Your task to perform on an android device: uninstall "Expedia: Hotels, Flights & Car" Image 0: 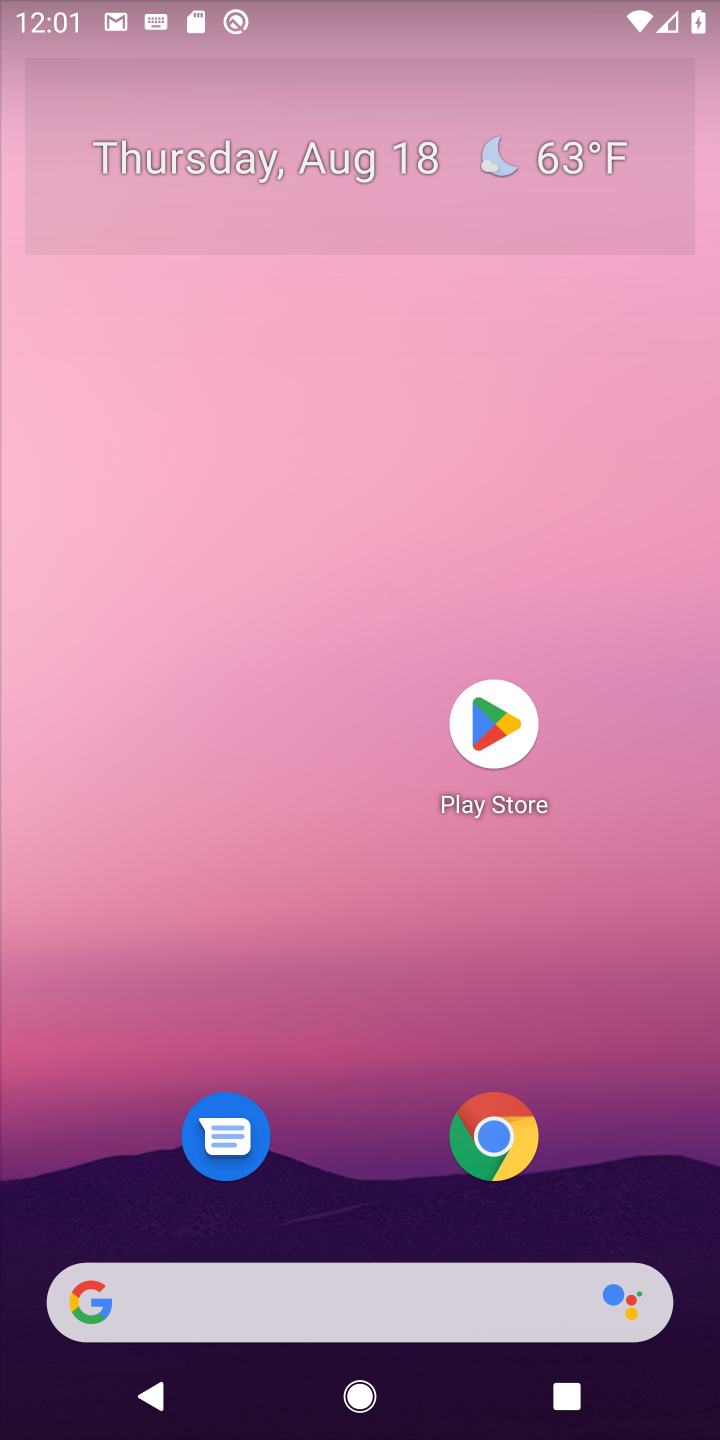
Step 0: press home button
Your task to perform on an android device: uninstall "Expedia: Hotels, Flights & Car" Image 1: 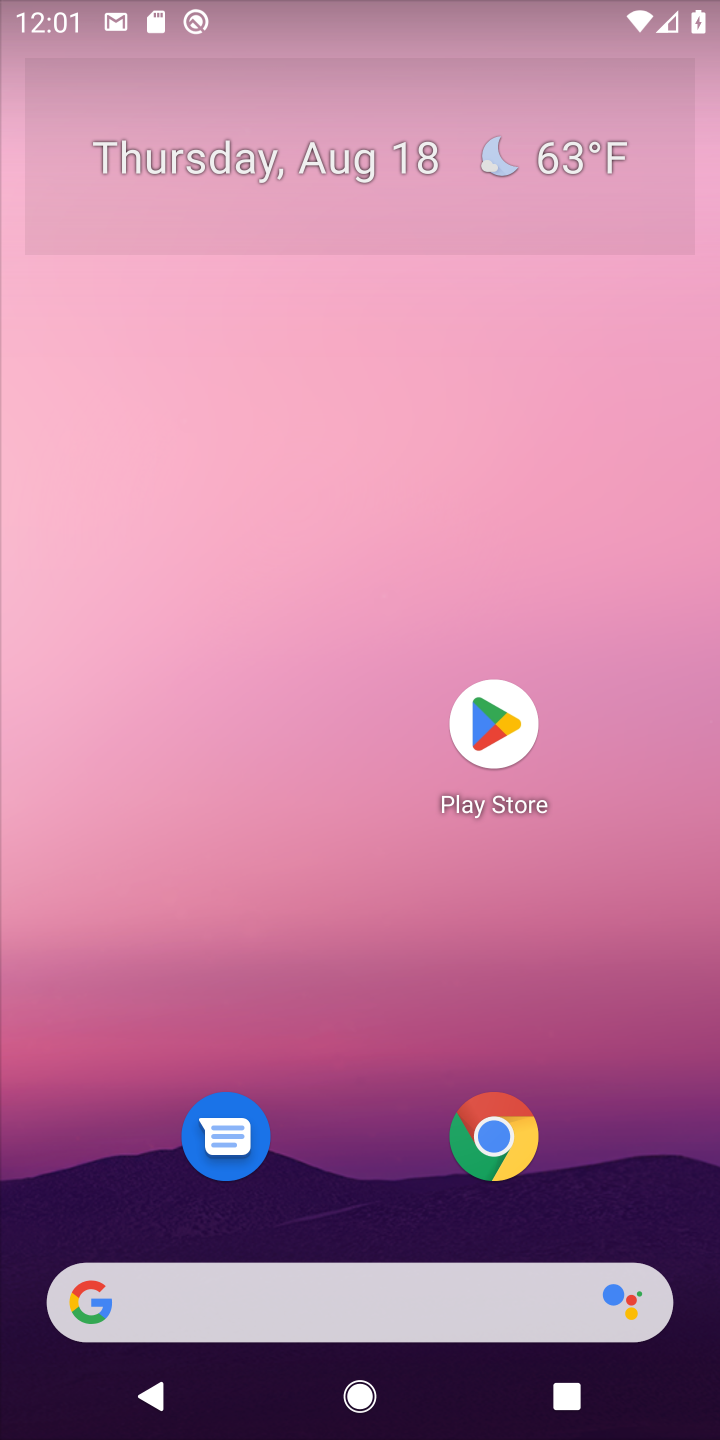
Step 1: click (502, 723)
Your task to perform on an android device: uninstall "Expedia: Hotels, Flights & Car" Image 2: 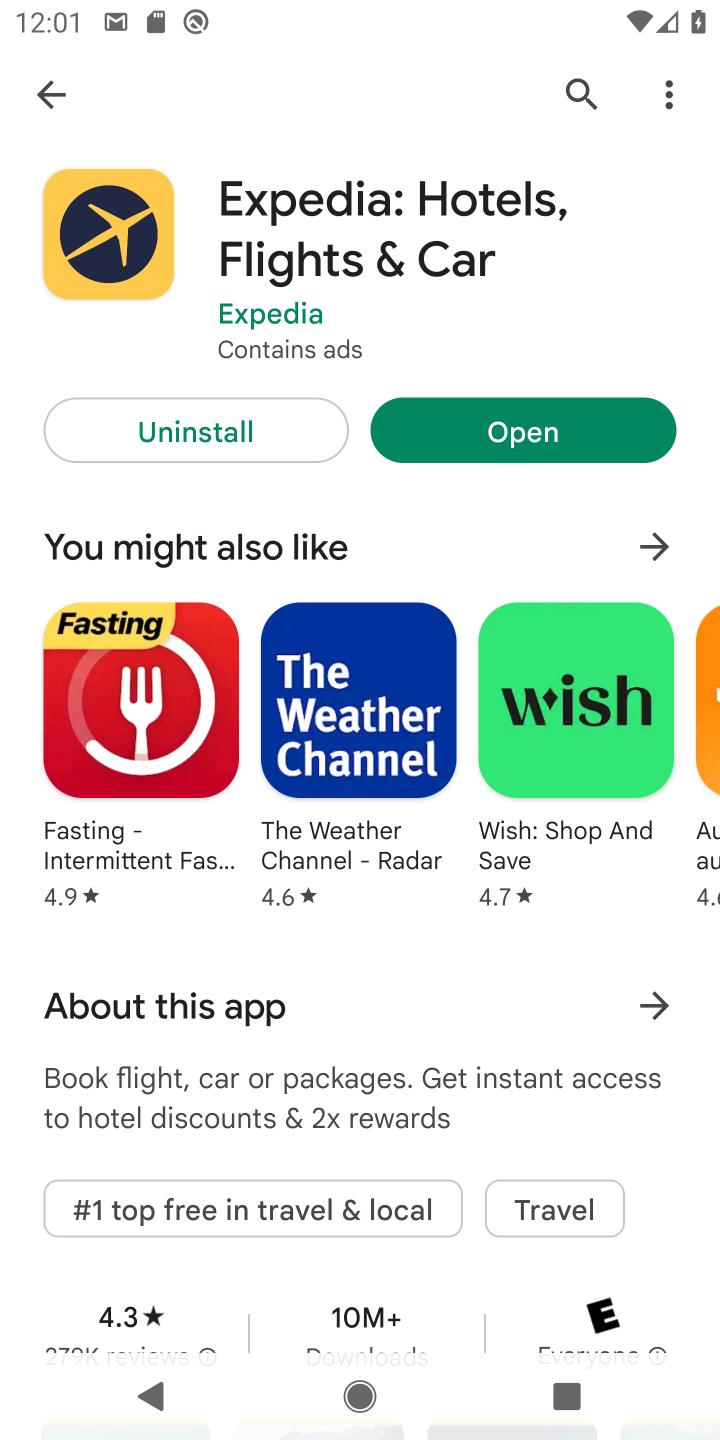
Step 2: click (220, 432)
Your task to perform on an android device: uninstall "Expedia: Hotels, Flights & Car" Image 3: 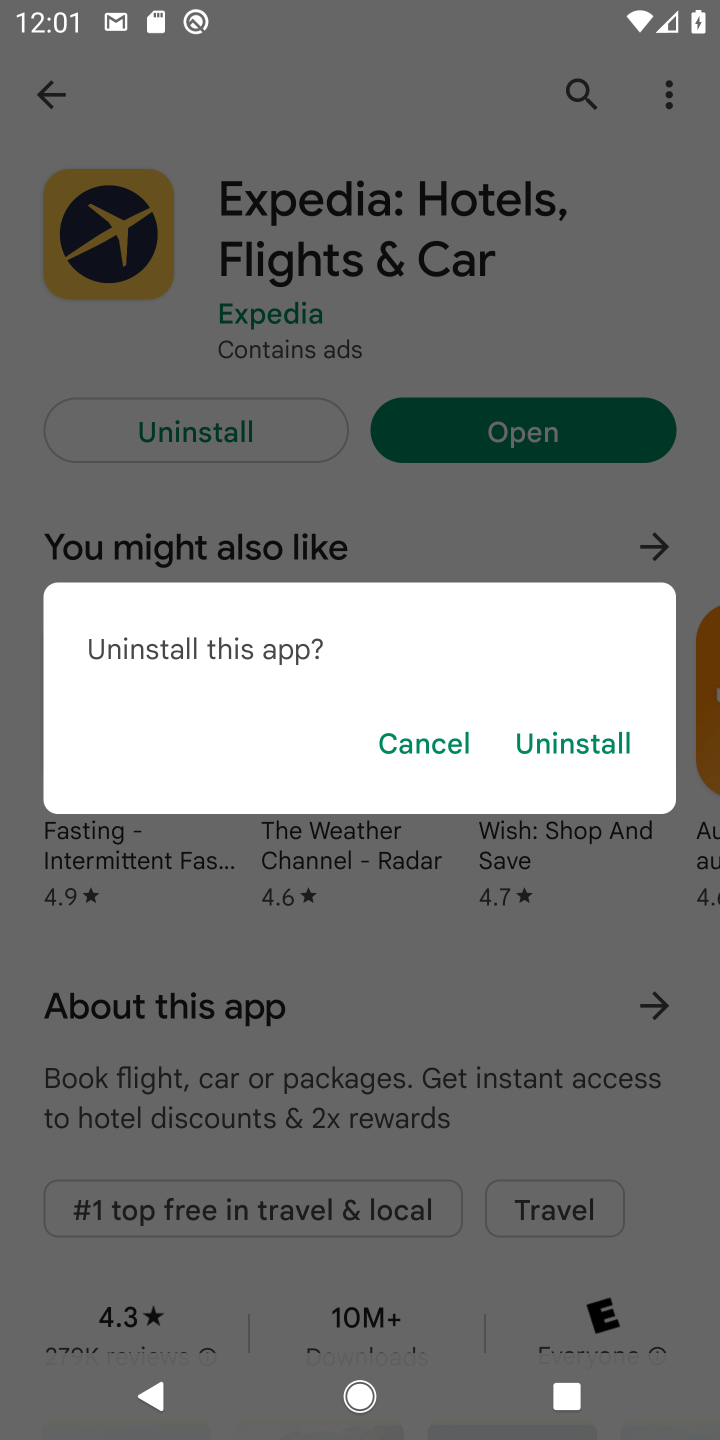
Step 3: click (557, 739)
Your task to perform on an android device: uninstall "Expedia: Hotels, Flights & Car" Image 4: 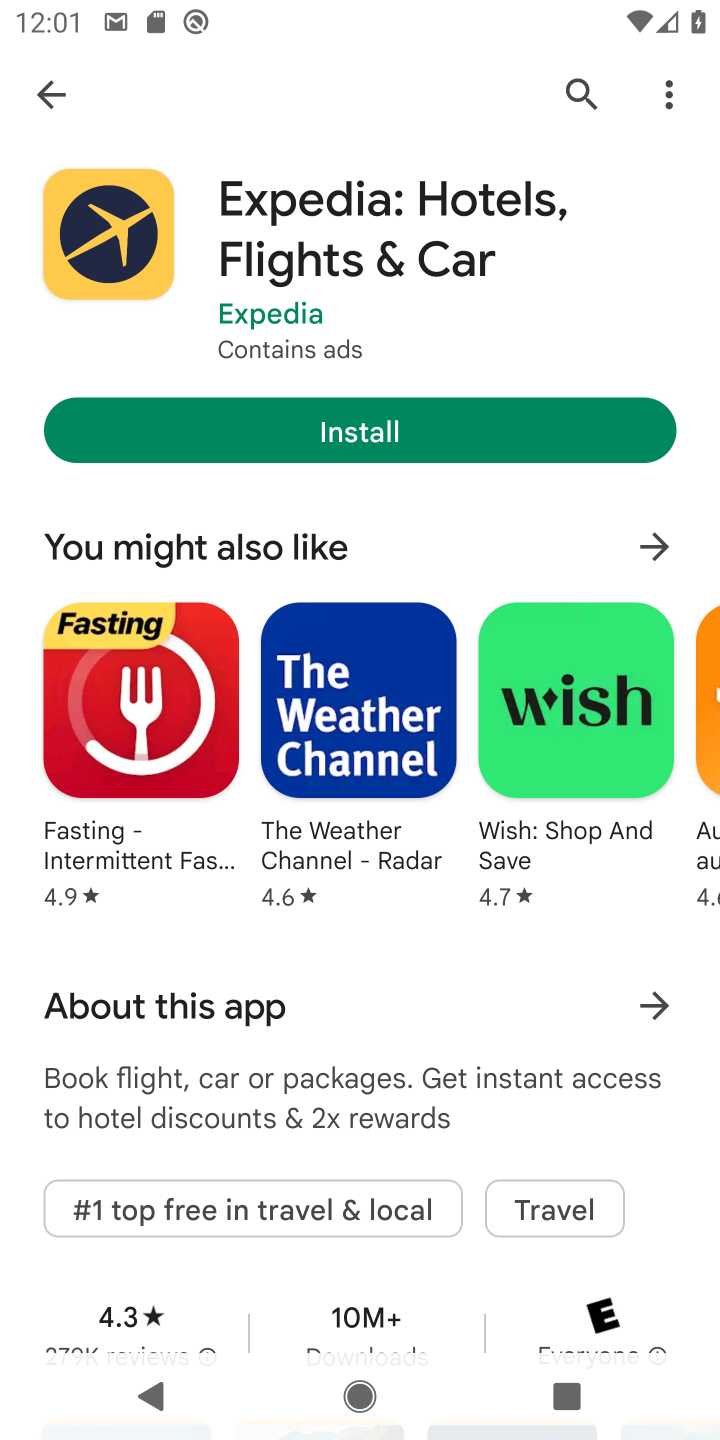
Step 4: task complete